Your task to perform on an android device: Open calendar and show me the third week of next month Image 0: 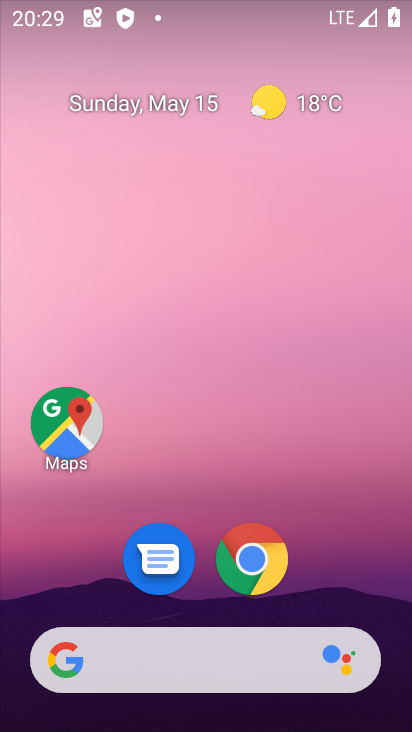
Step 0: drag from (209, 461) to (146, 79)
Your task to perform on an android device: Open calendar and show me the third week of next month Image 1: 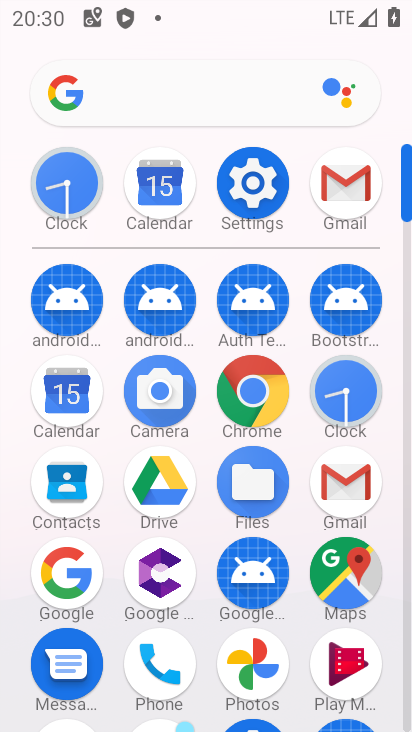
Step 1: click (66, 394)
Your task to perform on an android device: Open calendar and show me the third week of next month Image 2: 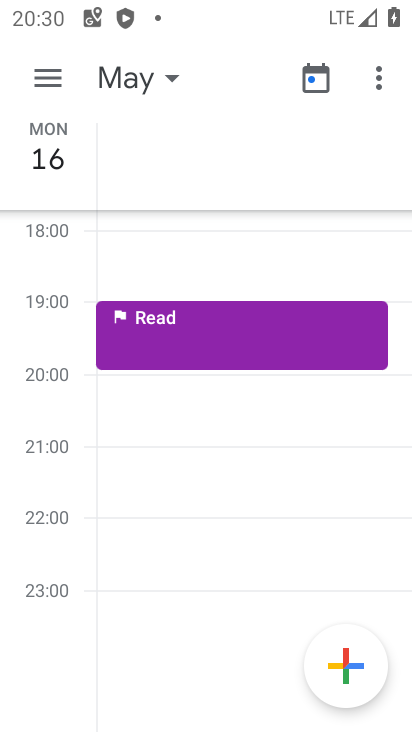
Step 2: click (168, 73)
Your task to perform on an android device: Open calendar and show me the third week of next month Image 3: 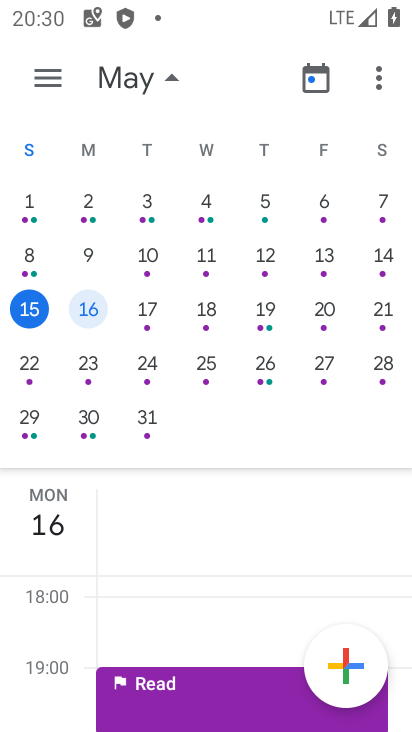
Step 3: drag from (361, 289) to (23, 286)
Your task to perform on an android device: Open calendar and show me the third week of next month Image 4: 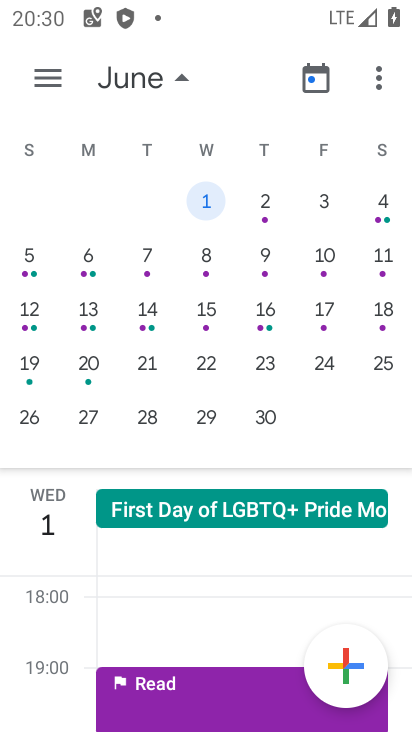
Step 4: click (203, 307)
Your task to perform on an android device: Open calendar and show me the third week of next month Image 5: 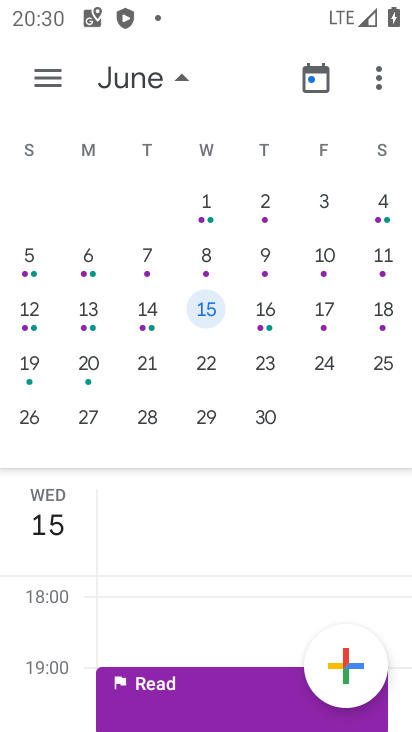
Step 5: click (47, 82)
Your task to perform on an android device: Open calendar and show me the third week of next month Image 6: 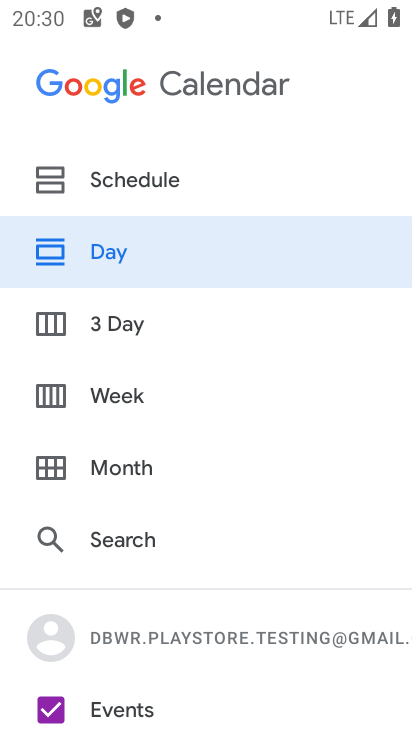
Step 6: click (104, 388)
Your task to perform on an android device: Open calendar and show me the third week of next month Image 7: 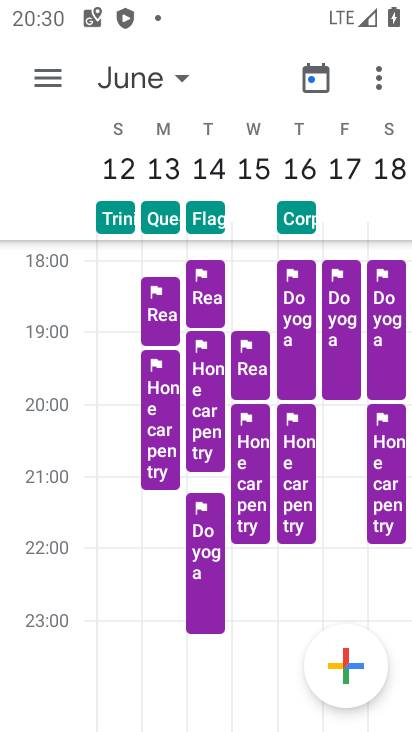
Step 7: task complete